Your task to perform on an android device: turn off notifications settings in the gmail app Image 0: 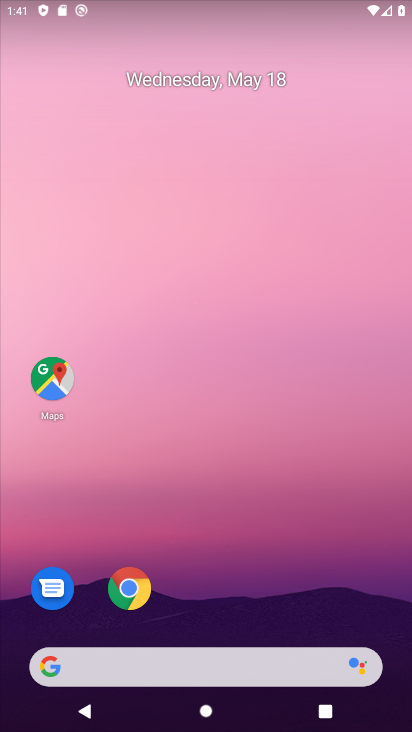
Step 0: drag from (166, 605) to (262, 83)
Your task to perform on an android device: turn off notifications settings in the gmail app Image 1: 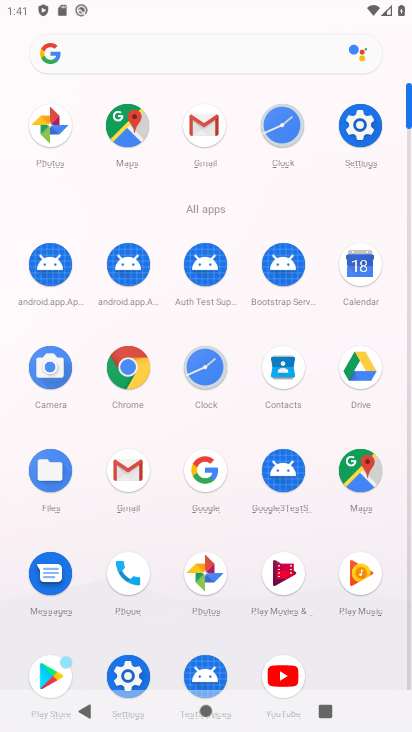
Step 1: click (133, 481)
Your task to perform on an android device: turn off notifications settings in the gmail app Image 2: 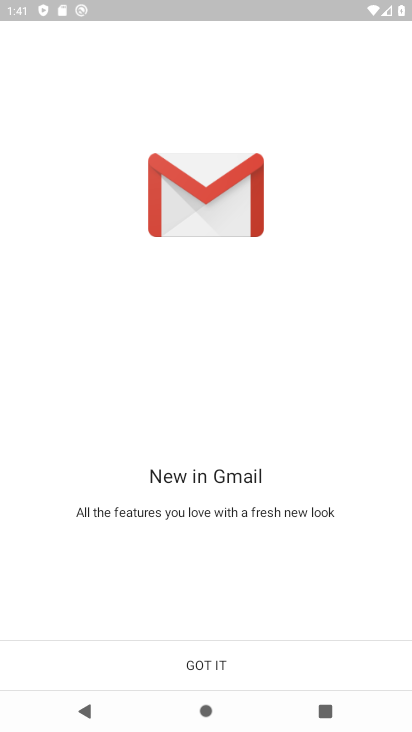
Step 2: click (195, 670)
Your task to perform on an android device: turn off notifications settings in the gmail app Image 3: 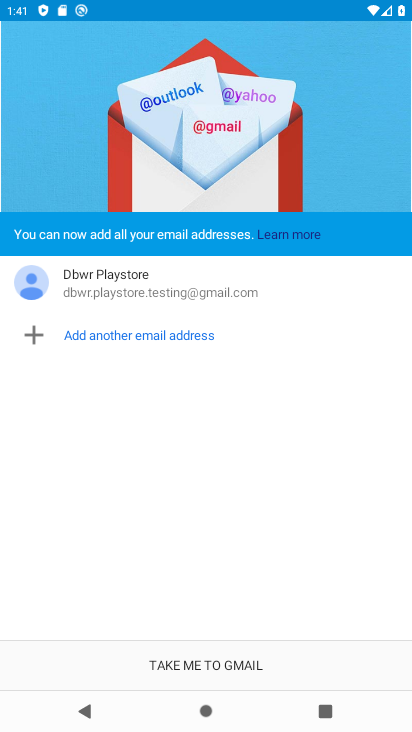
Step 3: click (240, 671)
Your task to perform on an android device: turn off notifications settings in the gmail app Image 4: 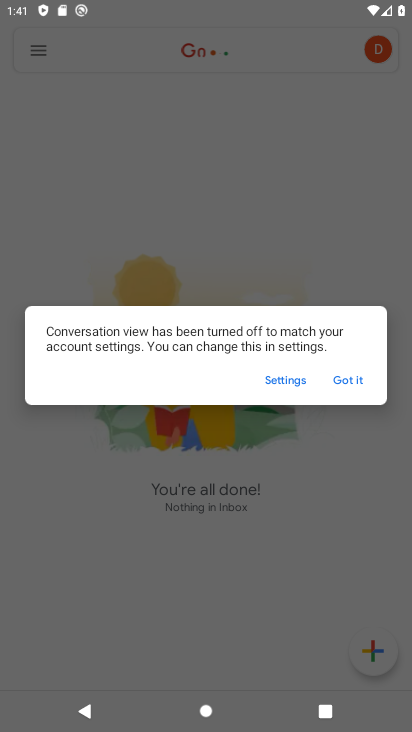
Step 4: click (346, 380)
Your task to perform on an android device: turn off notifications settings in the gmail app Image 5: 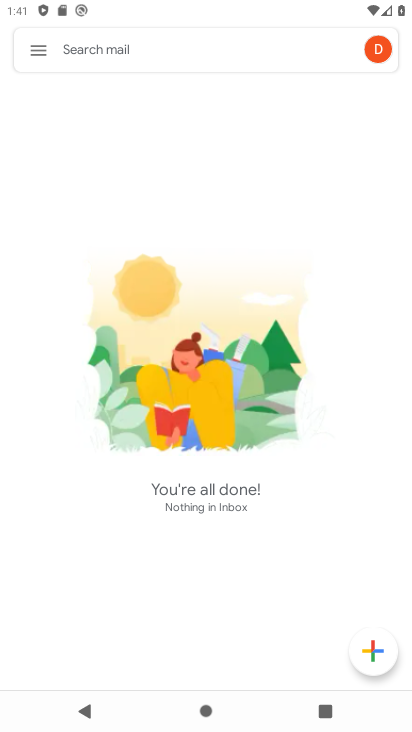
Step 5: click (51, 59)
Your task to perform on an android device: turn off notifications settings in the gmail app Image 6: 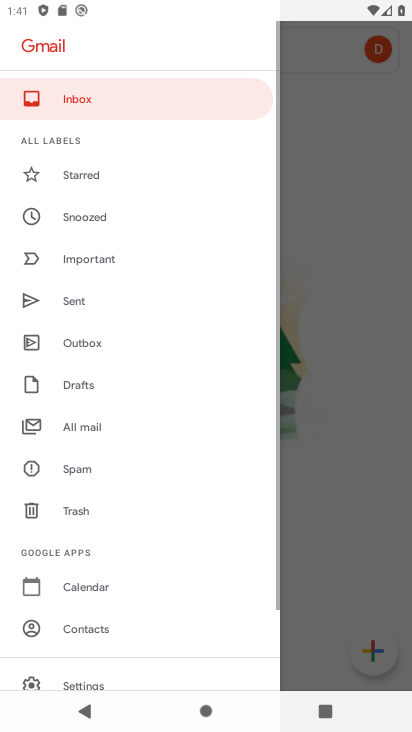
Step 6: drag from (88, 530) to (188, 232)
Your task to perform on an android device: turn off notifications settings in the gmail app Image 7: 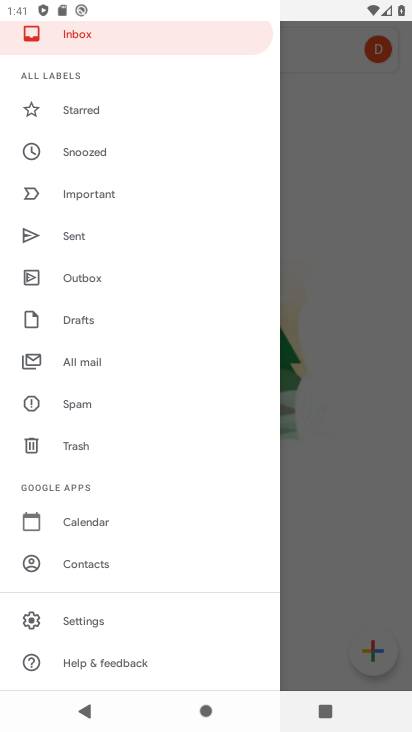
Step 7: click (119, 627)
Your task to perform on an android device: turn off notifications settings in the gmail app Image 8: 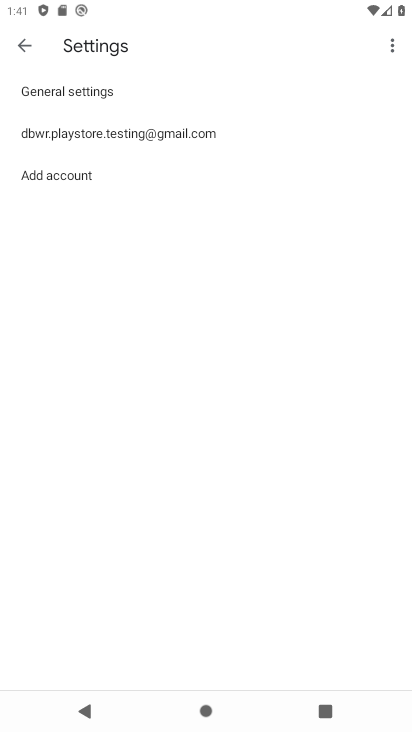
Step 8: click (193, 133)
Your task to perform on an android device: turn off notifications settings in the gmail app Image 9: 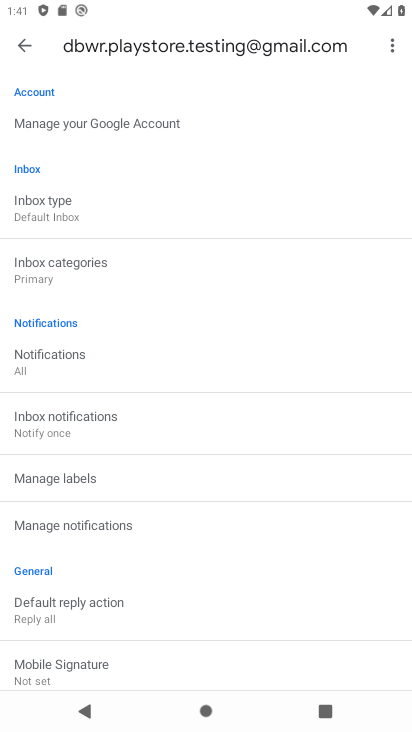
Step 9: drag from (139, 548) to (201, 370)
Your task to perform on an android device: turn off notifications settings in the gmail app Image 10: 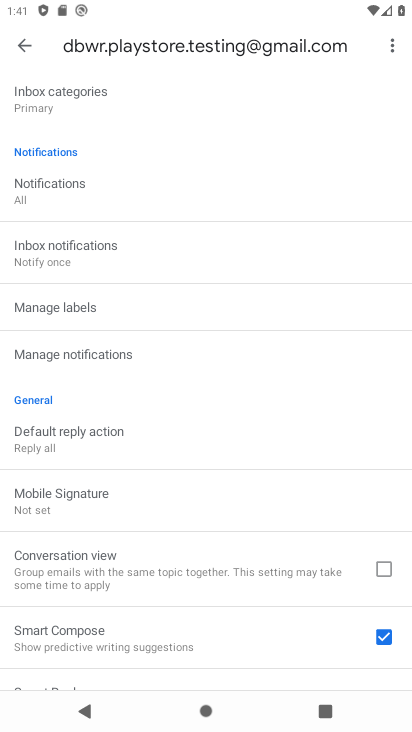
Step 10: click (143, 352)
Your task to perform on an android device: turn off notifications settings in the gmail app Image 11: 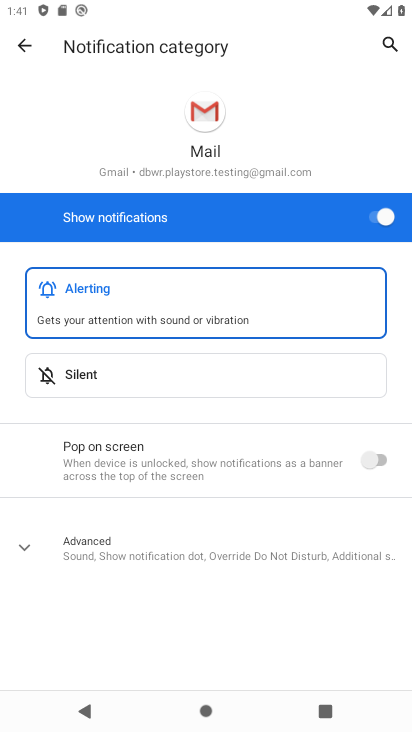
Step 11: click (371, 214)
Your task to perform on an android device: turn off notifications settings in the gmail app Image 12: 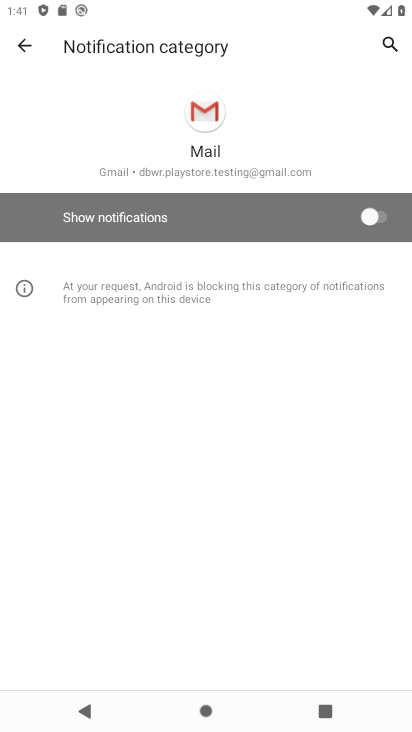
Step 12: task complete